Your task to perform on an android device: toggle wifi Image 0: 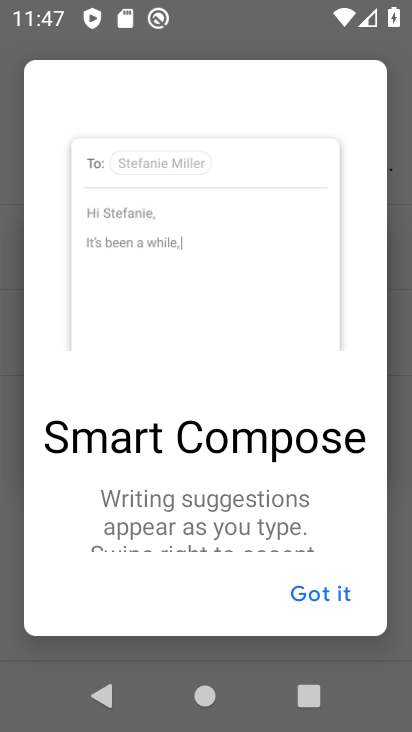
Step 0: click (324, 596)
Your task to perform on an android device: toggle wifi Image 1: 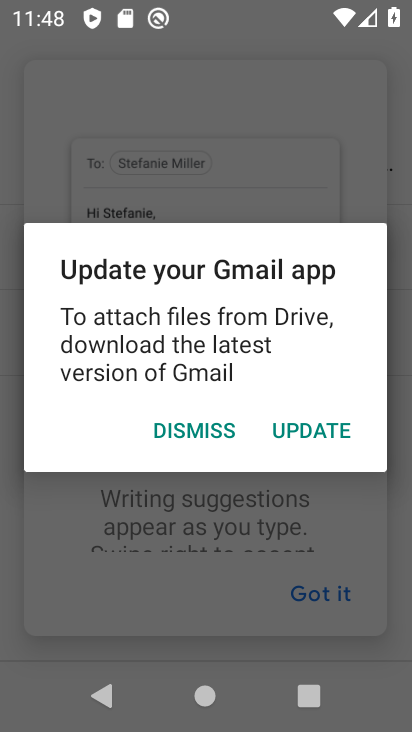
Step 1: click (293, 434)
Your task to perform on an android device: toggle wifi Image 2: 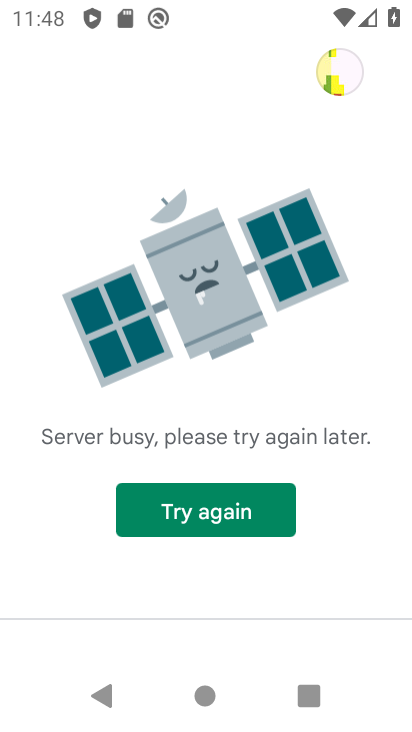
Step 2: press home button
Your task to perform on an android device: toggle wifi Image 3: 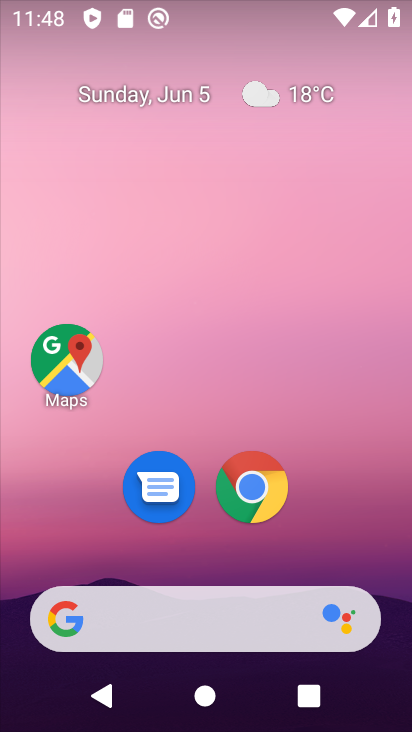
Step 3: drag from (375, 525) to (376, 96)
Your task to perform on an android device: toggle wifi Image 4: 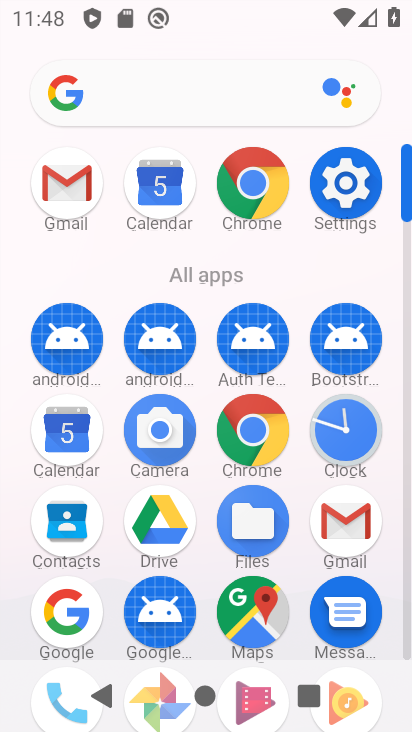
Step 4: drag from (296, 525) to (327, 271)
Your task to perform on an android device: toggle wifi Image 5: 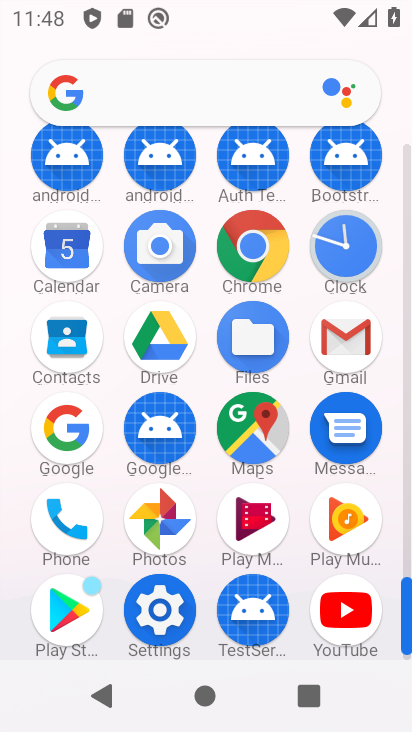
Step 5: click (169, 616)
Your task to perform on an android device: toggle wifi Image 6: 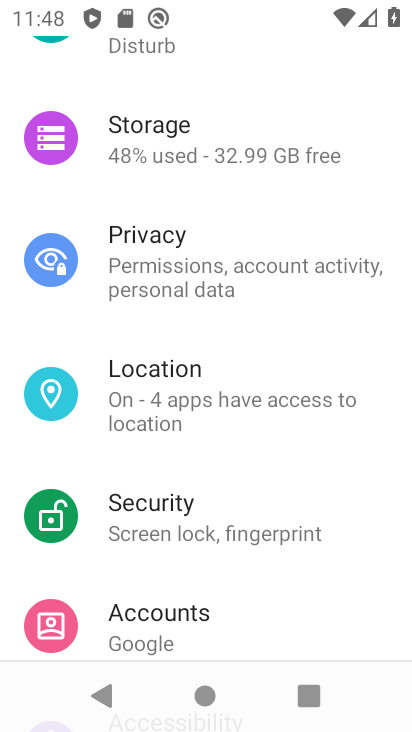
Step 6: drag from (291, 202) to (271, 585)
Your task to perform on an android device: toggle wifi Image 7: 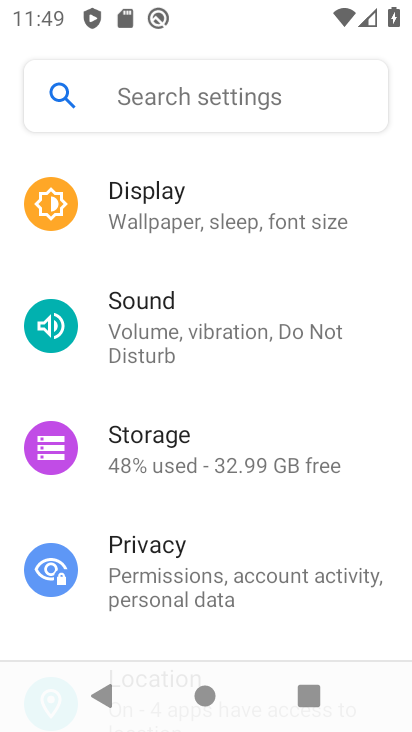
Step 7: drag from (232, 298) to (235, 571)
Your task to perform on an android device: toggle wifi Image 8: 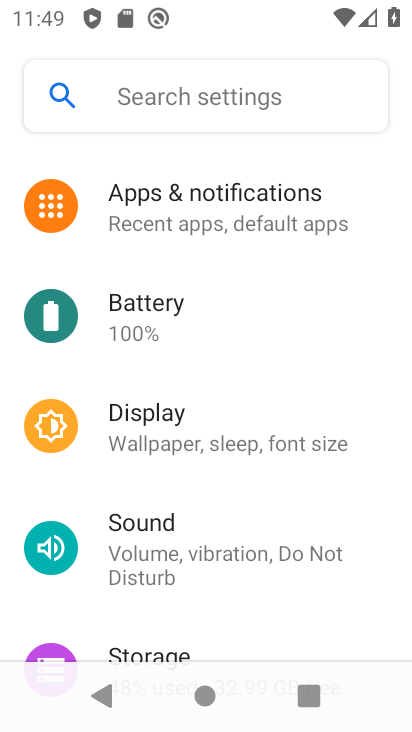
Step 8: drag from (176, 244) to (198, 606)
Your task to perform on an android device: toggle wifi Image 9: 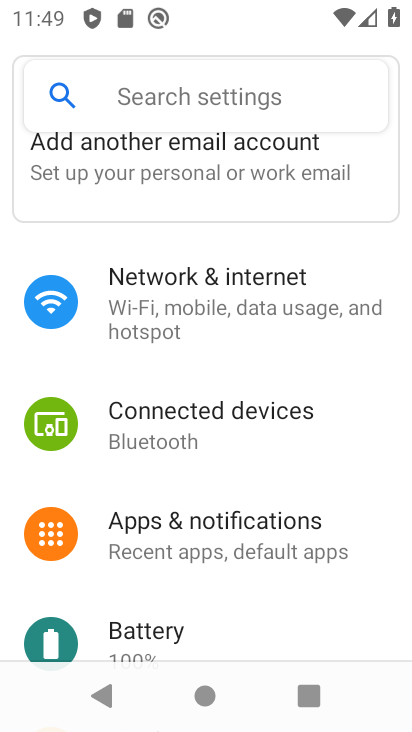
Step 9: click (207, 303)
Your task to perform on an android device: toggle wifi Image 10: 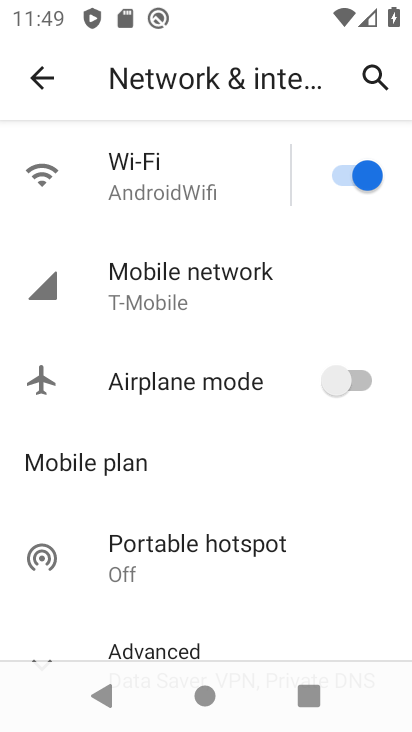
Step 10: click (343, 172)
Your task to perform on an android device: toggle wifi Image 11: 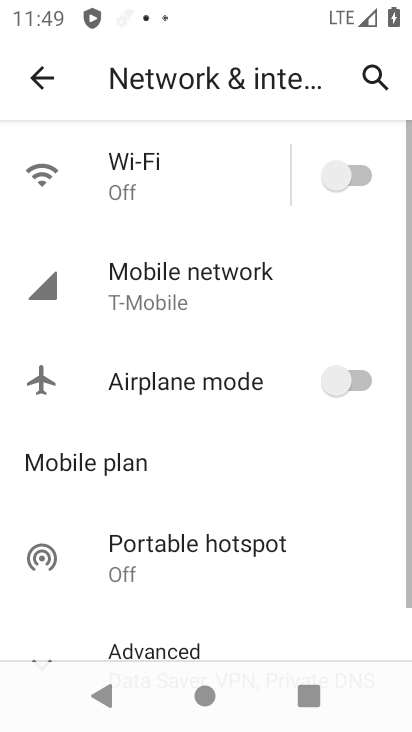
Step 11: task complete